Your task to perform on an android device: move a message to another label in the gmail app Image 0: 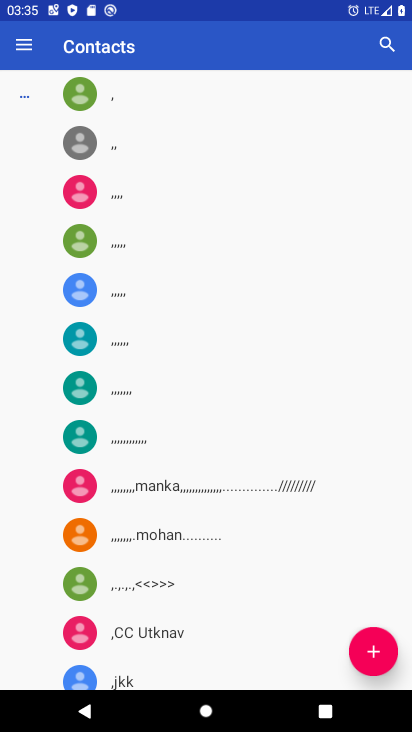
Step 0: press home button
Your task to perform on an android device: move a message to another label in the gmail app Image 1: 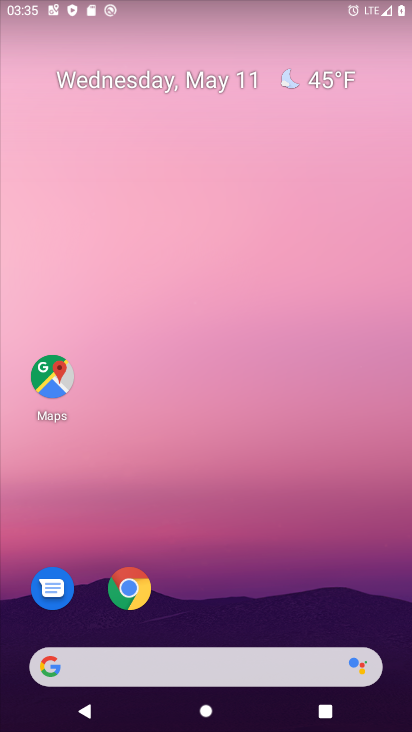
Step 1: drag from (239, 622) to (284, 133)
Your task to perform on an android device: move a message to another label in the gmail app Image 2: 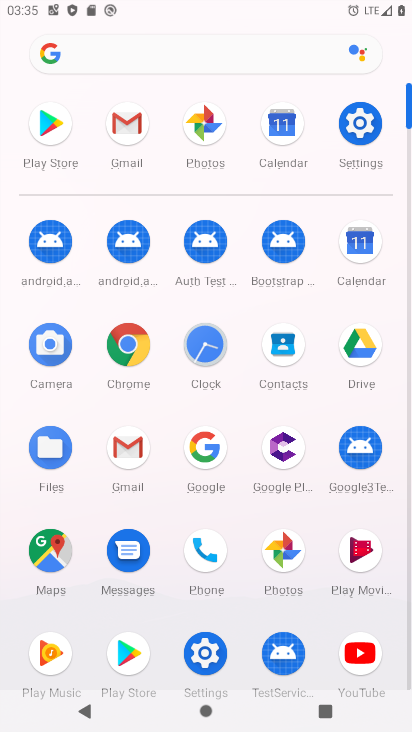
Step 2: click (129, 150)
Your task to perform on an android device: move a message to another label in the gmail app Image 3: 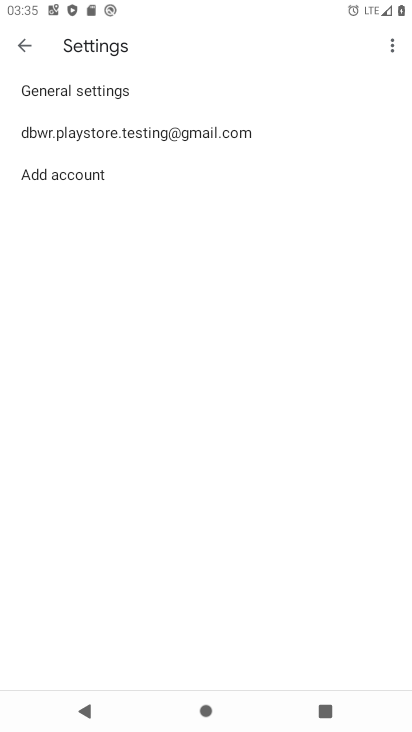
Step 3: click (180, 137)
Your task to perform on an android device: move a message to another label in the gmail app Image 4: 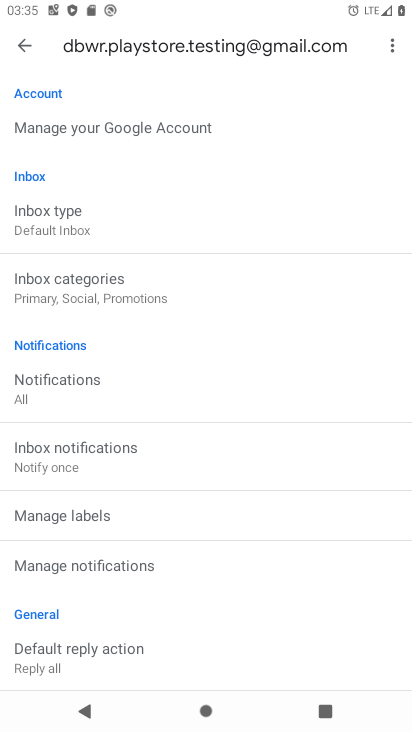
Step 4: click (20, 47)
Your task to perform on an android device: move a message to another label in the gmail app Image 5: 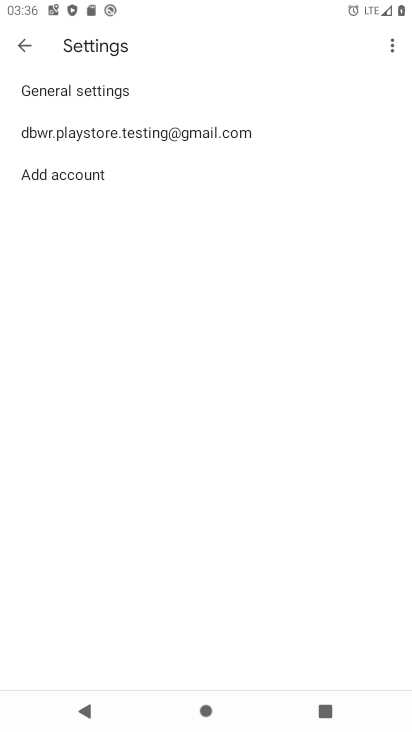
Step 5: click (18, 51)
Your task to perform on an android device: move a message to another label in the gmail app Image 6: 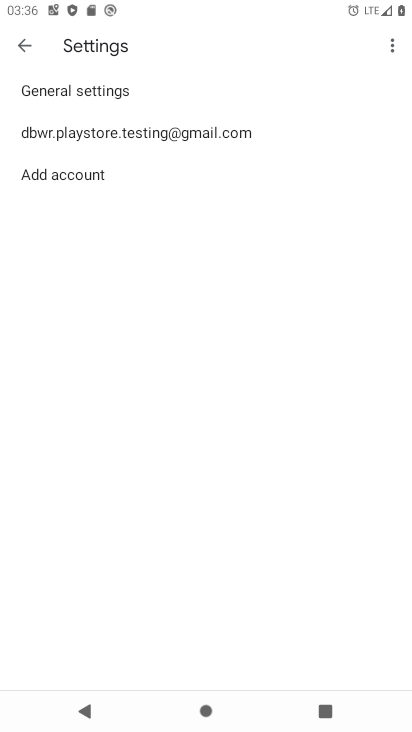
Step 6: click (28, 55)
Your task to perform on an android device: move a message to another label in the gmail app Image 7: 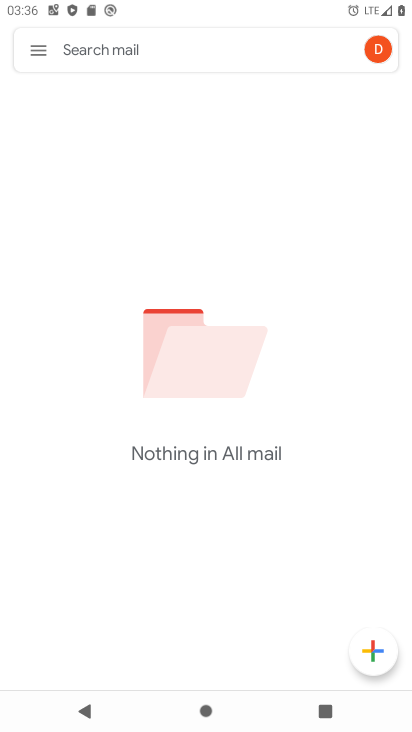
Step 7: click (28, 55)
Your task to perform on an android device: move a message to another label in the gmail app Image 8: 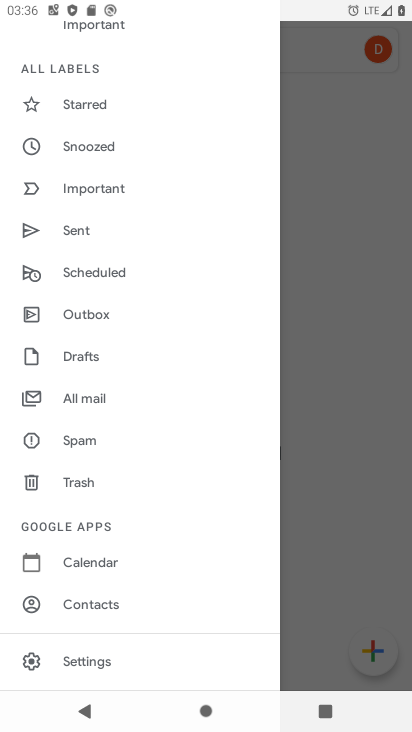
Step 8: click (74, 385)
Your task to perform on an android device: move a message to another label in the gmail app Image 9: 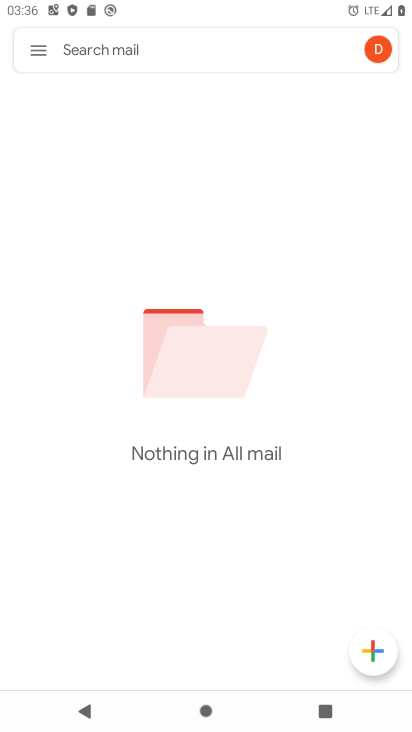
Step 9: task complete